Your task to perform on an android device: turn off location history Image 0: 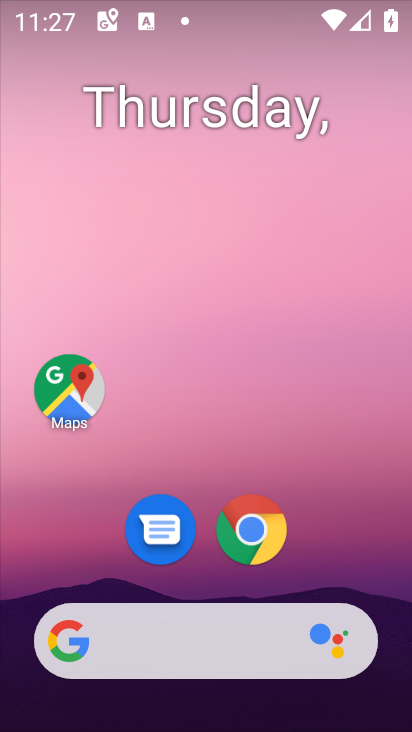
Step 0: drag from (230, 513) to (278, 151)
Your task to perform on an android device: turn off location history Image 1: 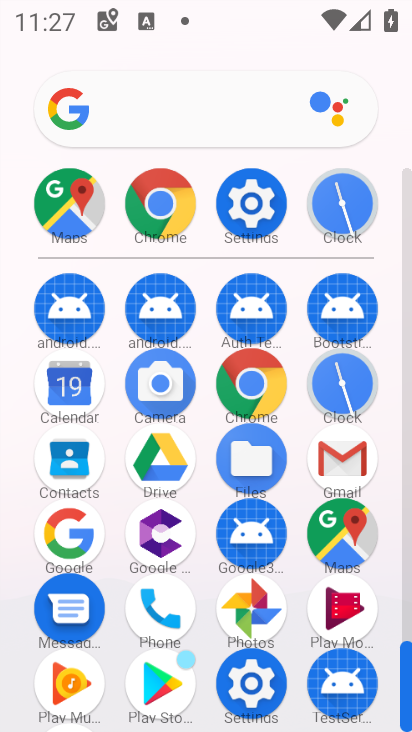
Step 1: click (257, 233)
Your task to perform on an android device: turn off location history Image 2: 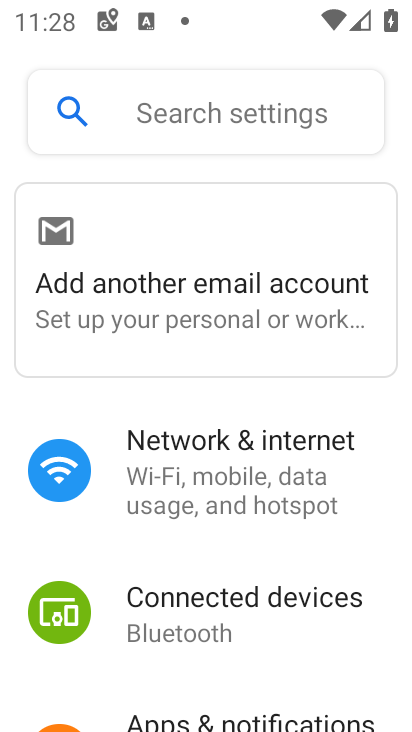
Step 2: drag from (231, 359) to (235, 296)
Your task to perform on an android device: turn off location history Image 3: 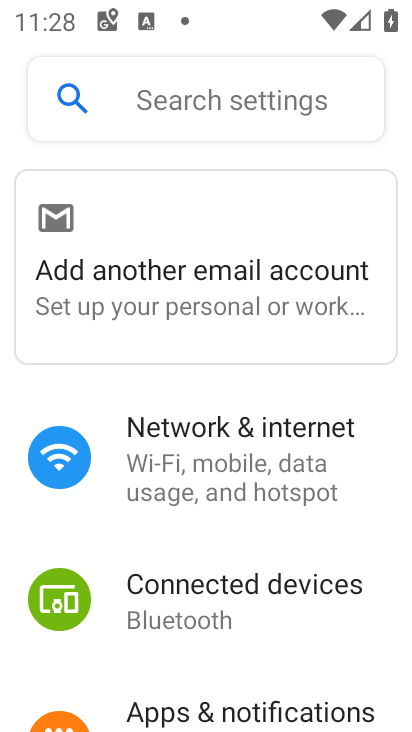
Step 3: drag from (195, 560) to (195, 332)
Your task to perform on an android device: turn off location history Image 4: 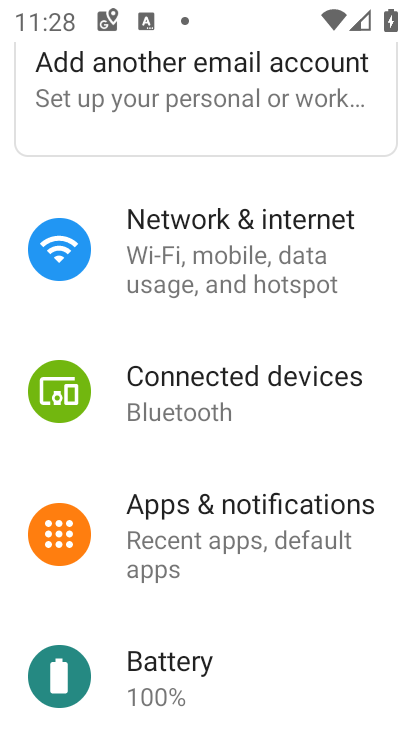
Step 4: drag from (177, 533) to (222, 276)
Your task to perform on an android device: turn off location history Image 5: 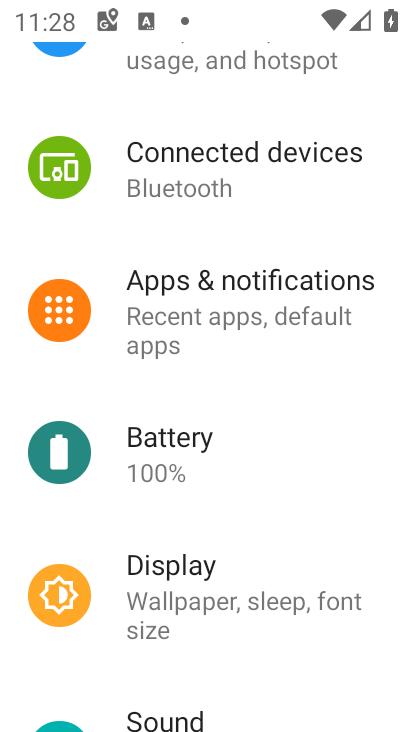
Step 5: drag from (233, 603) to (276, 254)
Your task to perform on an android device: turn off location history Image 6: 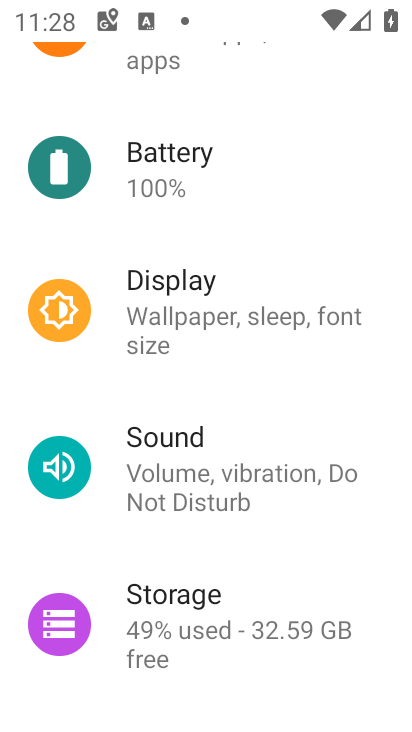
Step 6: drag from (252, 558) to (276, 320)
Your task to perform on an android device: turn off location history Image 7: 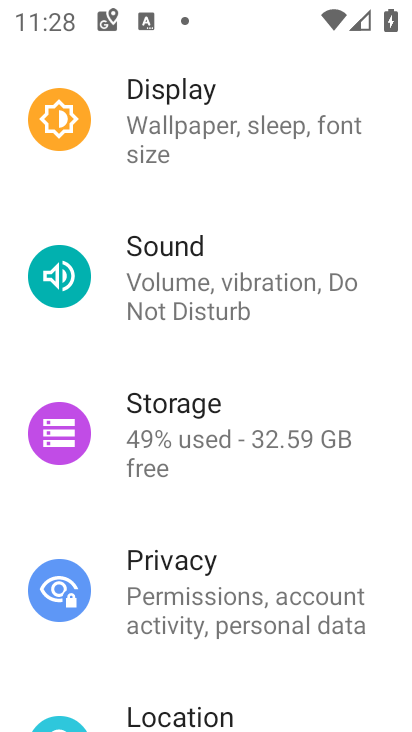
Step 7: drag from (227, 622) to (270, 403)
Your task to perform on an android device: turn off location history Image 8: 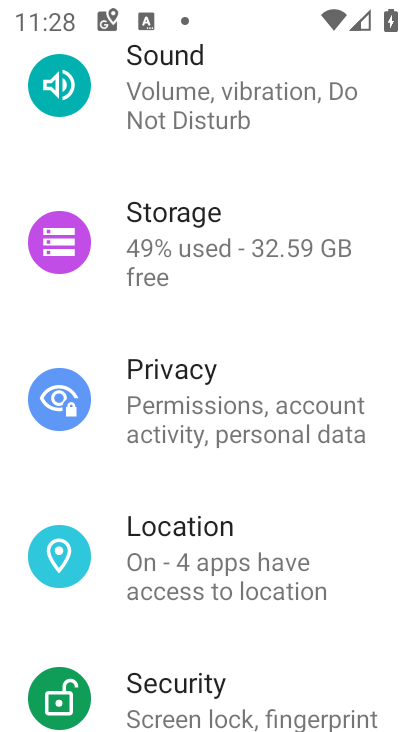
Step 8: click (247, 536)
Your task to perform on an android device: turn off location history Image 9: 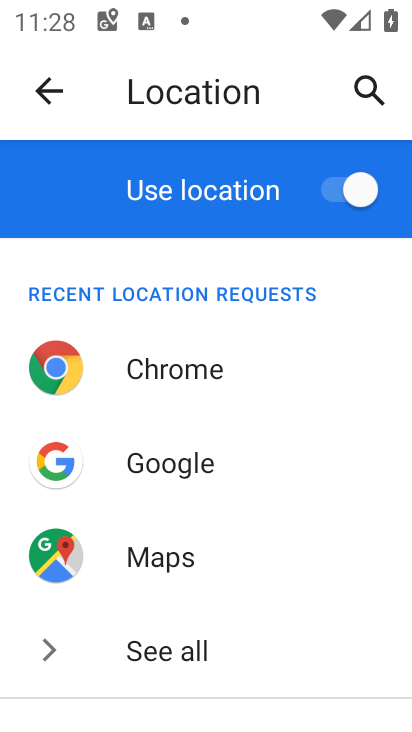
Step 9: drag from (197, 614) to (253, 292)
Your task to perform on an android device: turn off location history Image 10: 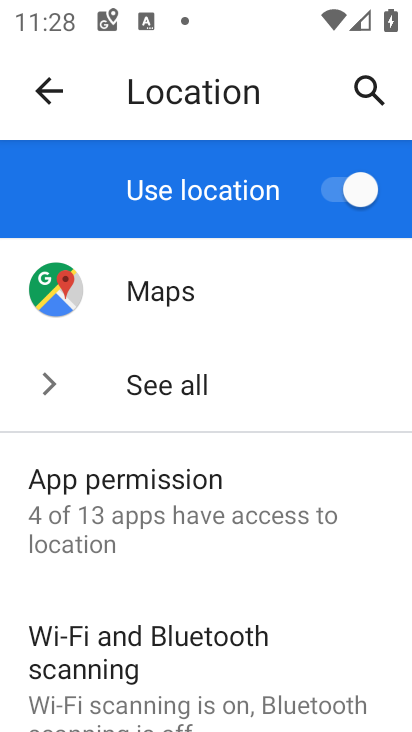
Step 10: drag from (170, 581) to (254, 254)
Your task to perform on an android device: turn off location history Image 11: 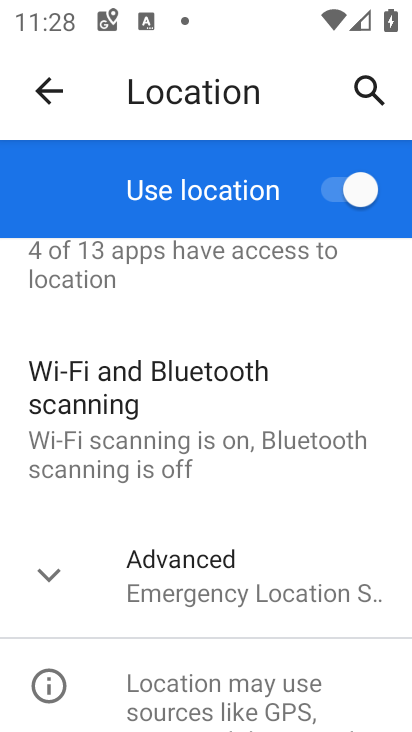
Step 11: click (192, 573)
Your task to perform on an android device: turn off location history Image 12: 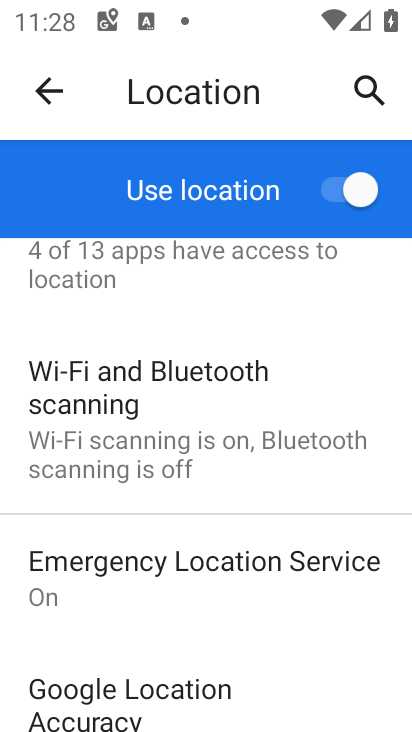
Step 12: click (261, 281)
Your task to perform on an android device: turn off location history Image 13: 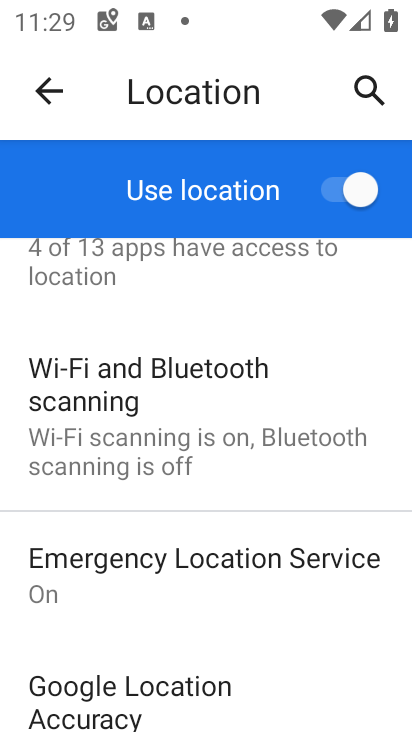
Step 13: drag from (212, 561) to (197, 181)
Your task to perform on an android device: turn off location history Image 14: 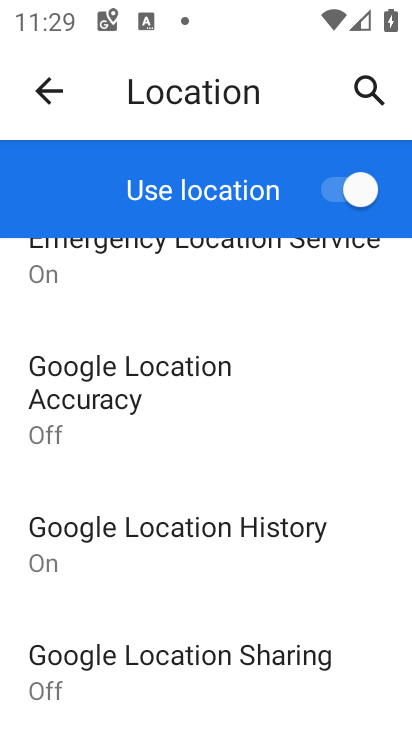
Step 14: drag from (211, 641) to (218, 293)
Your task to perform on an android device: turn off location history Image 15: 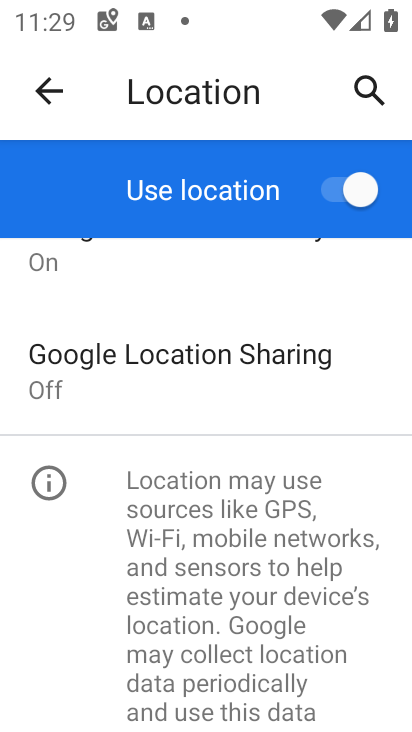
Step 15: drag from (245, 324) to (228, 569)
Your task to perform on an android device: turn off location history Image 16: 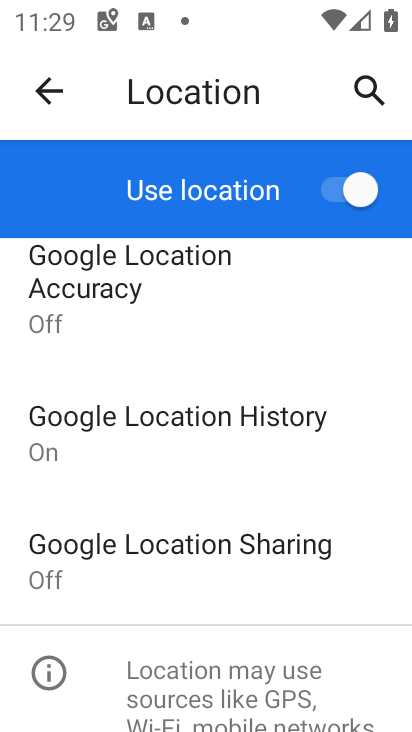
Step 16: click (244, 444)
Your task to perform on an android device: turn off location history Image 17: 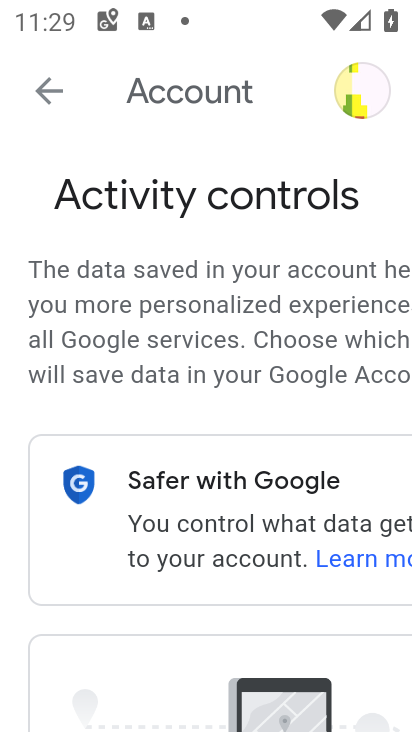
Step 17: task complete